Your task to perform on an android device: Open calendar and show me the third week of next month Image 0: 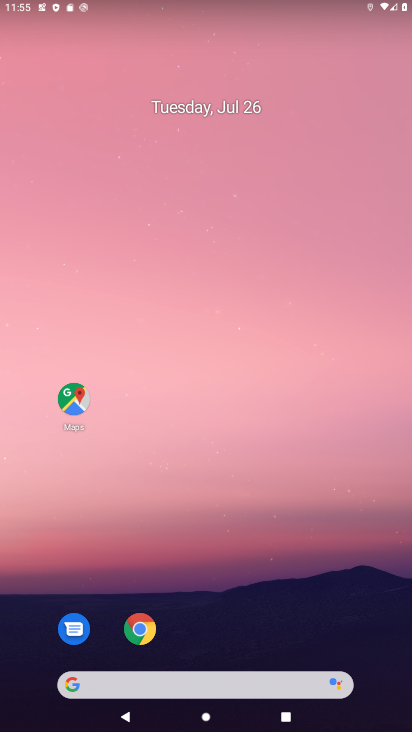
Step 0: drag from (232, 718) to (234, 314)
Your task to perform on an android device: Open calendar and show me the third week of next month Image 1: 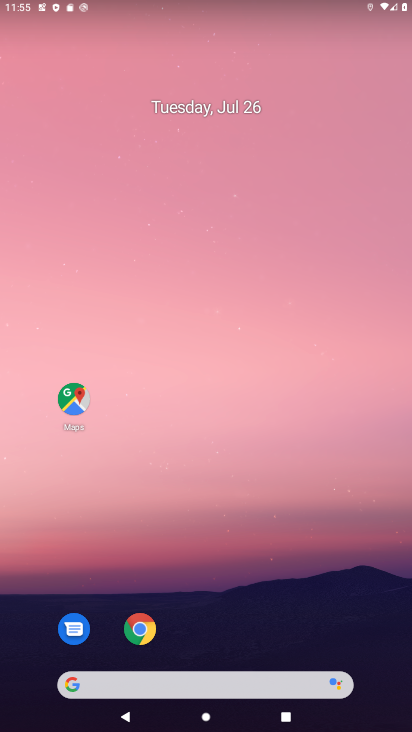
Step 1: drag from (220, 730) to (213, 84)
Your task to perform on an android device: Open calendar and show me the third week of next month Image 2: 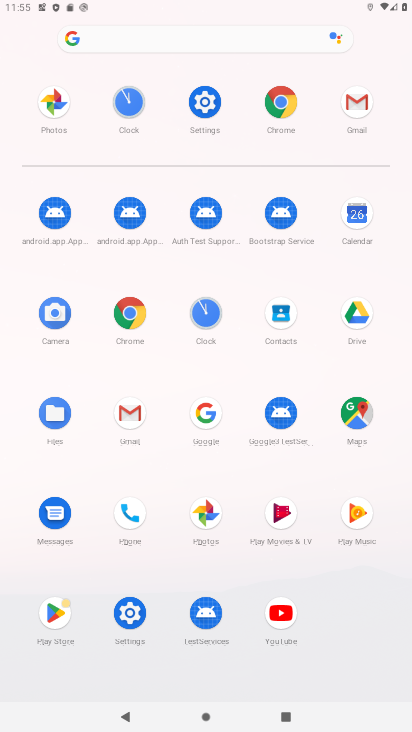
Step 2: click (356, 218)
Your task to perform on an android device: Open calendar and show me the third week of next month Image 3: 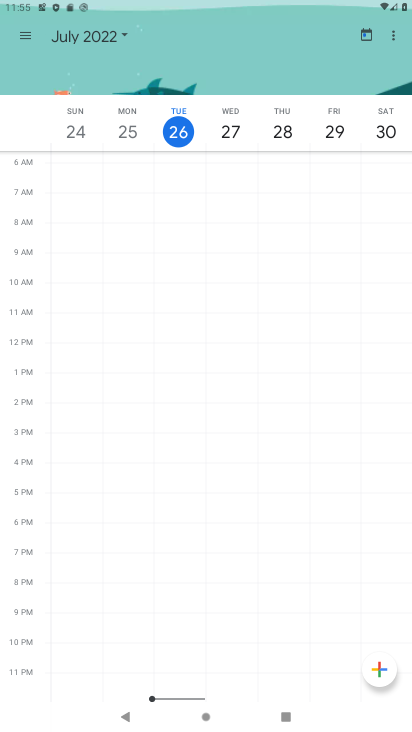
Step 3: click (122, 37)
Your task to perform on an android device: Open calendar and show me the third week of next month Image 4: 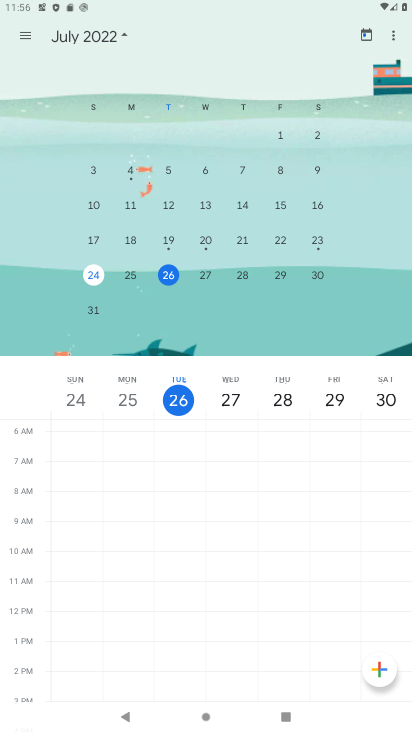
Step 4: drag from (295, 233) to (112, 220)
Your task to perform on an android device: Open calendar and show me the third week of next month Image 5: 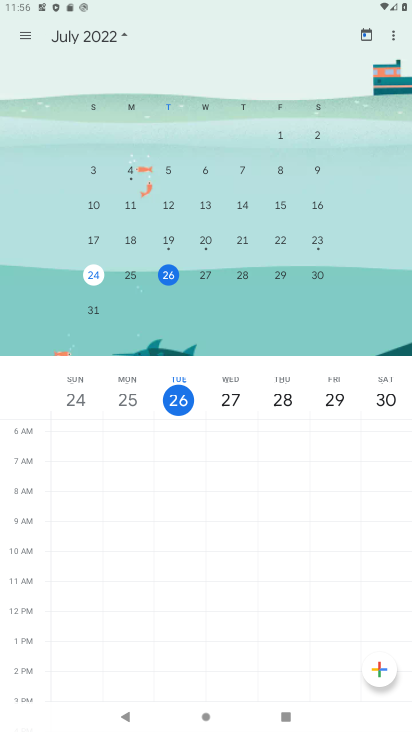
Step 5: drag from (306, 213) to (95, 213)
Your task to perform on an android device: Open calendar and show me the third week of next month Image 6: 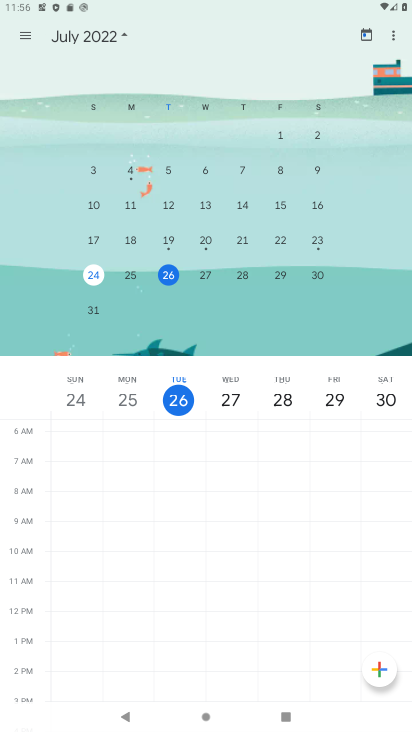
Step 6: drag from (364, 218) to (83, 213)
Your task to perform on an android device: Open calendar and show me the third week of next month Image 7: 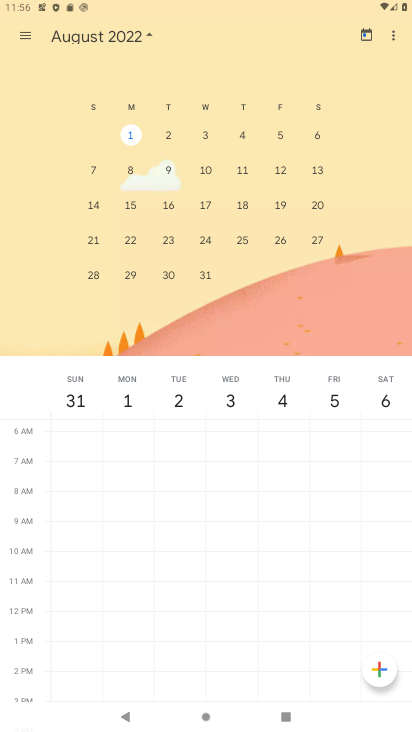
Step 7: click (129, 207)
Your task to perform on an android device: Open calendar and show me the third week of next month Image 8: 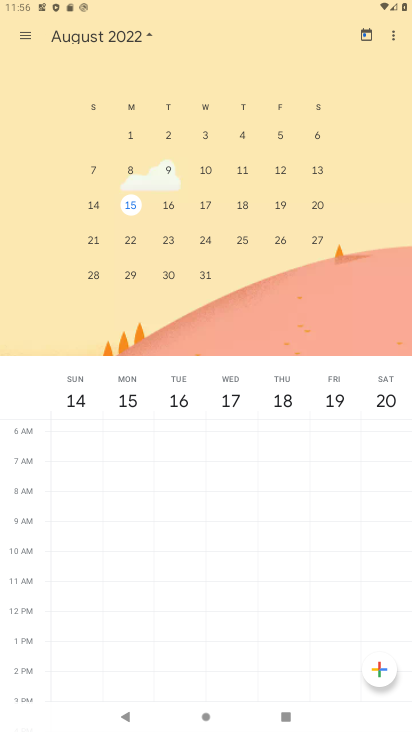
Step 8: click (30, 30)
Your task to perform on an android device: Open calendar and show me the third week of next month Image 9: 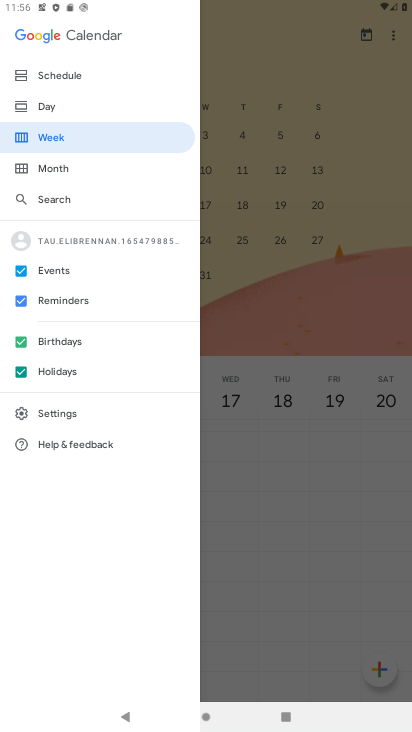
Step 9: click (63, 132)
Your task to perform on an android device: Open calendar and show me the third week of next month Image 10: 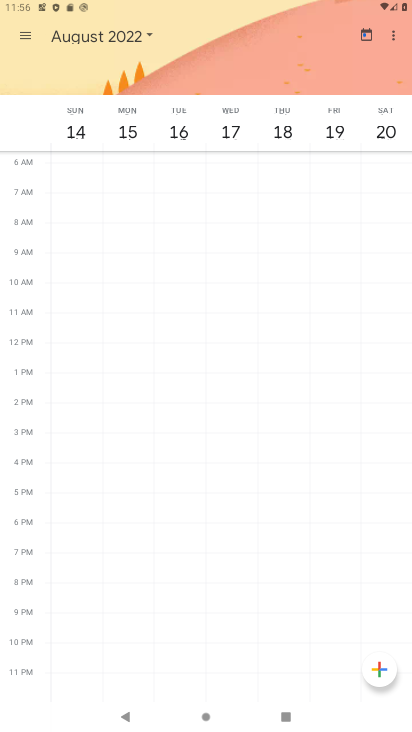
Step 10: task complete